Your task to perform on an android device: Open internet settings Image 0: 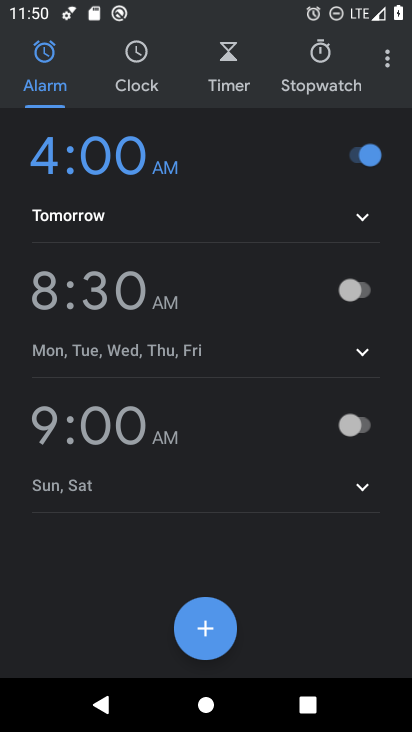
Step 0: press home button
Your task to perform on an android device: Open internet settings Image 1: 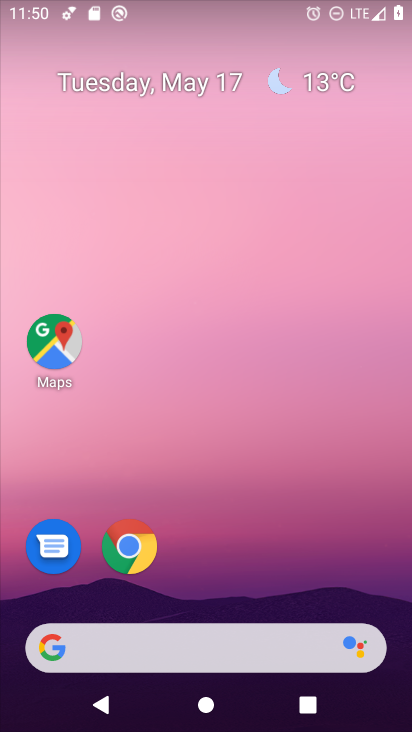
Step 1: drag from (290, 553) to (239, 7)
Your task to perform on an android device: Open internet settings Image 2: 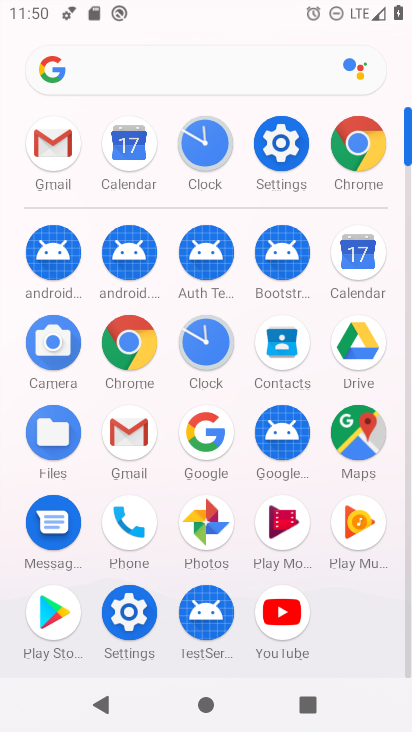
Step 2: click (256, 170)
Your task to perform on an android device: Open internet settings Image 3: 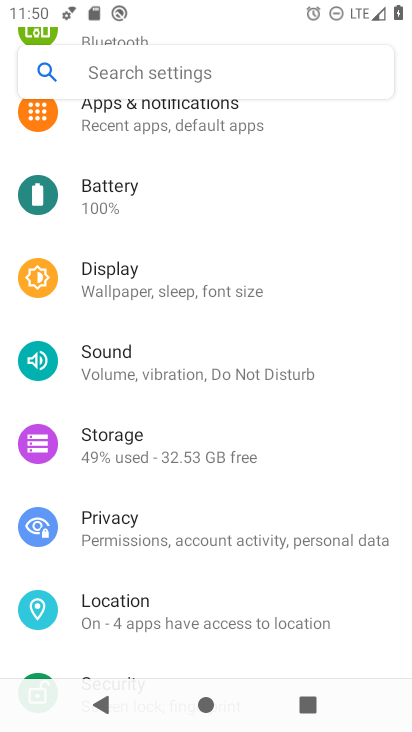
Step 3: drag from (210, 206) to (231, 549)
Your task to perform on an android device: Open internet settings Image 4: 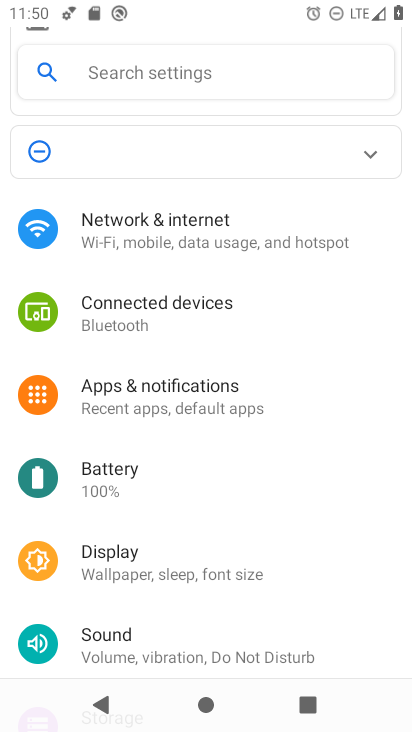
Step 4: click (203, 230)
Your task to perform on an android device: Open internet settings Image 5: 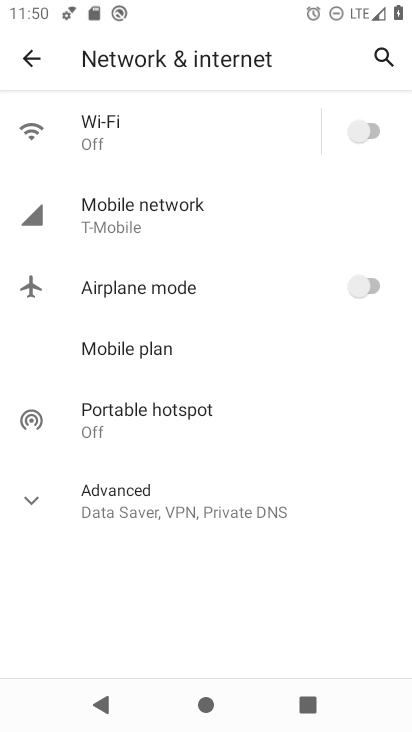
Step 5: task complete